Your task to perform on an android device: Open Yahoo.com Image 0: 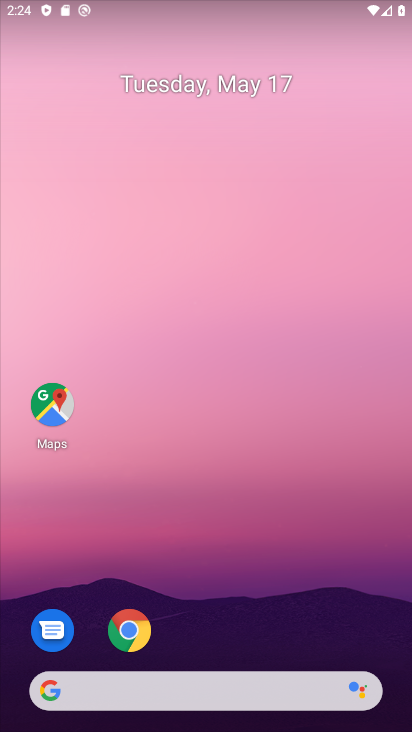
Step 0: click (130, 629)
Your task to perform on an android device: Open Yahoo.com Image 1: 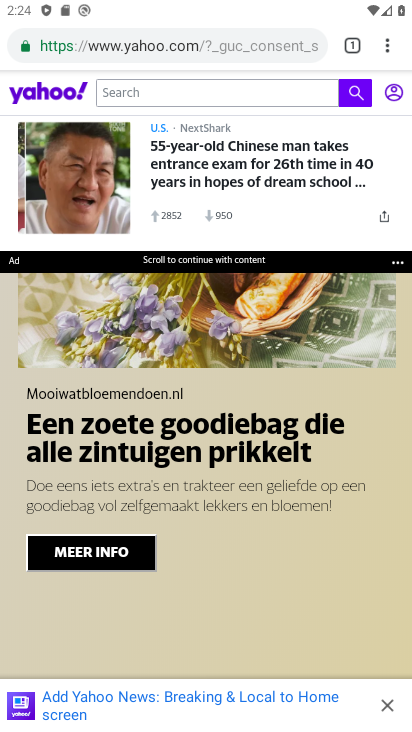
Step 1: task complete